Your task to perform on an android device: Show me recent news Image 0: 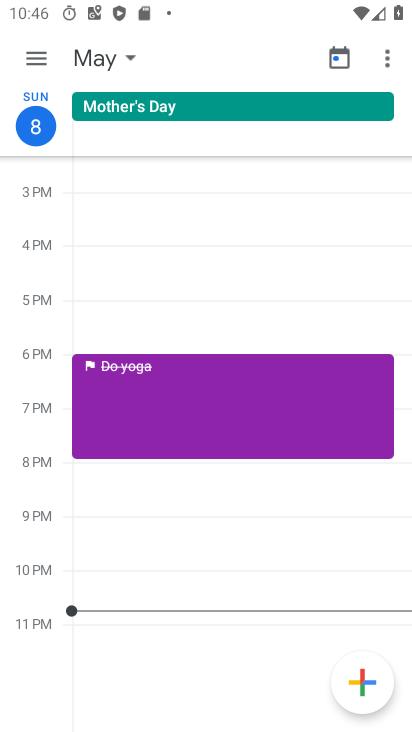
Step 0: press home button
Your task to perform on an android device: Show me recent news Image 1: 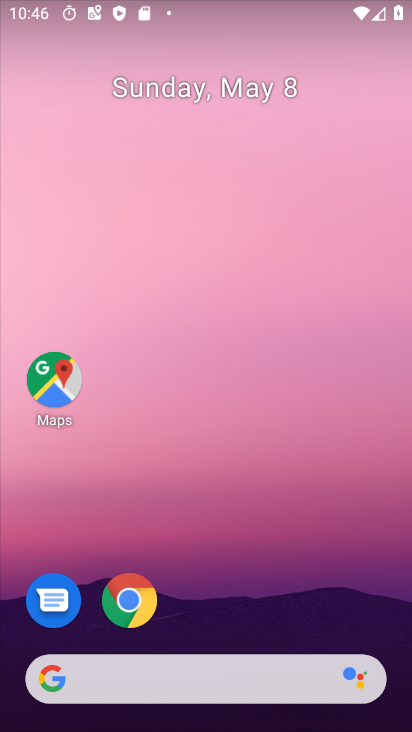
Step 1: click (185, 679)
Your task to perform on an android device: Show me recent news Image 2: 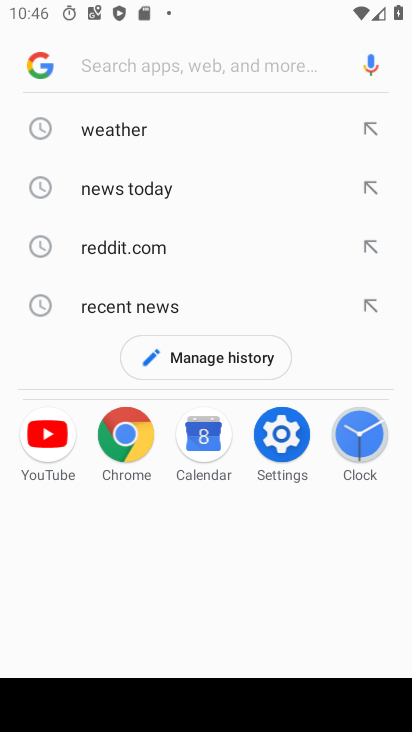
Step 2: click (123, 175)
Your task to perform on an android device: Show me recent news Image 3: 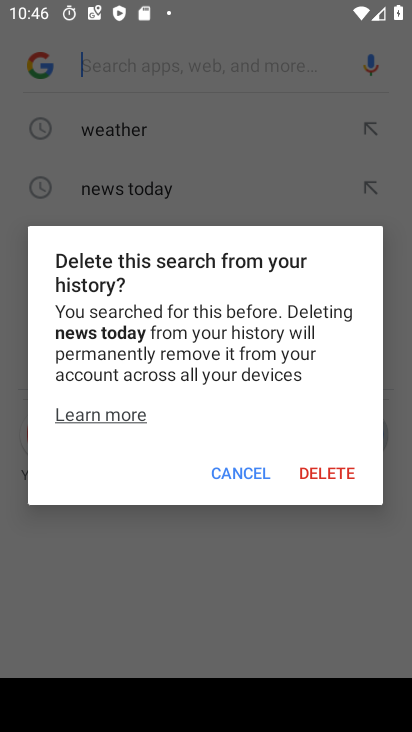
Step 3: click (238, 479)
Your task to perform on an android device: Show me recent news Image 4: 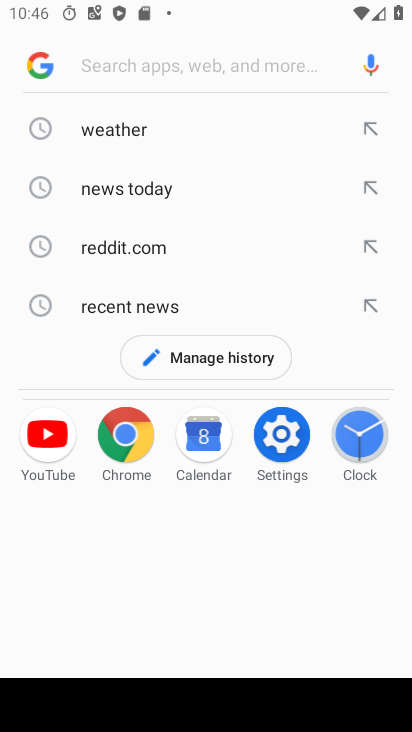
Step 4: click (367, 189)
Your task to perform on an android device: Show me recent news Image 5: 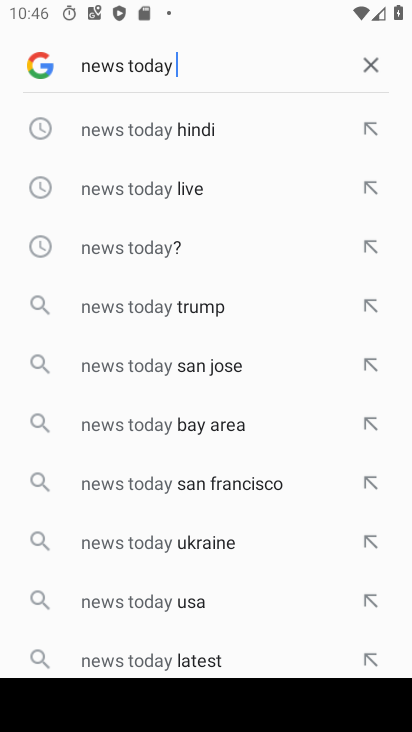
Step 5: click (235, 73)
Your task to perform on an android device: Show me recent news Image 6: 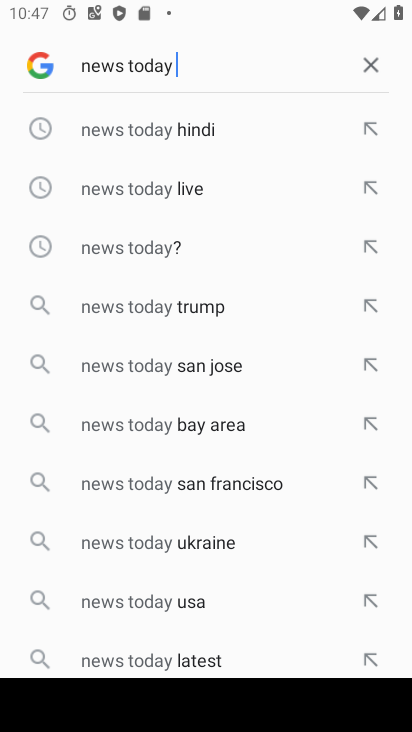
Step 6: click (117, 249)
Your task to perform on an android device: Show me recent news Image 7: 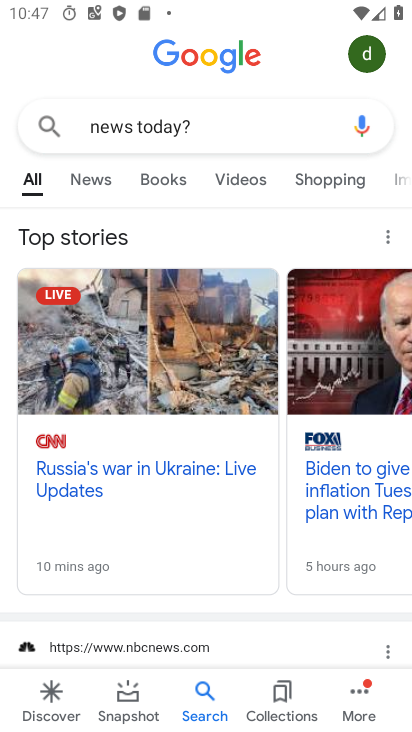
Step 7: task complete